Your task to perform on an android device: toggle notifications settings in the gmail app Image 0: 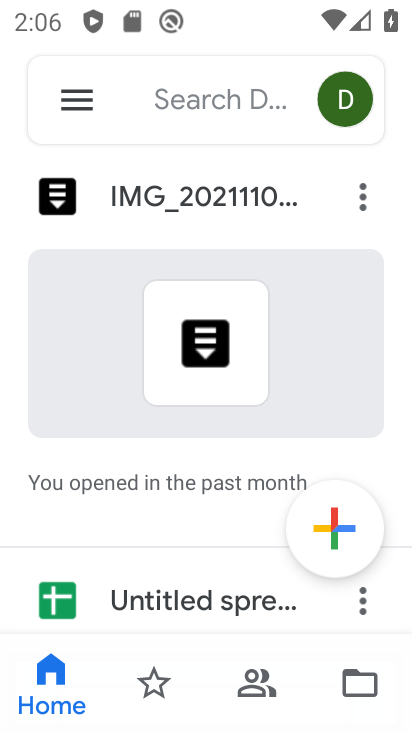
Step 0: press home button
Your task to perform on an android device: toggle notifications settings in the gmail app Image 1: 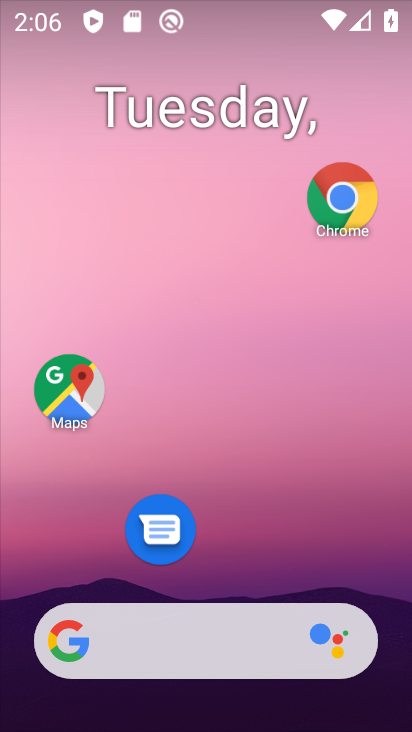
Step 1: drag from (229, 518) to (271, 36)
Your task to perform on an android device: toggle notifications settings in the gmail app Image 2: 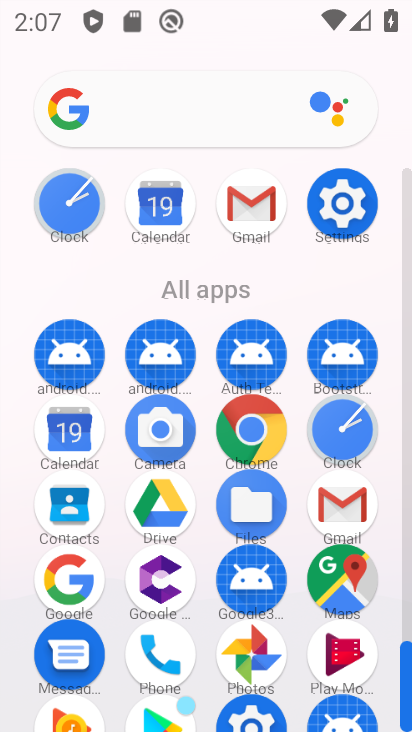
Step 2: click (248, 203)
Your task to perform on an android device: toggle notifications settings in the gmail app Image 3: 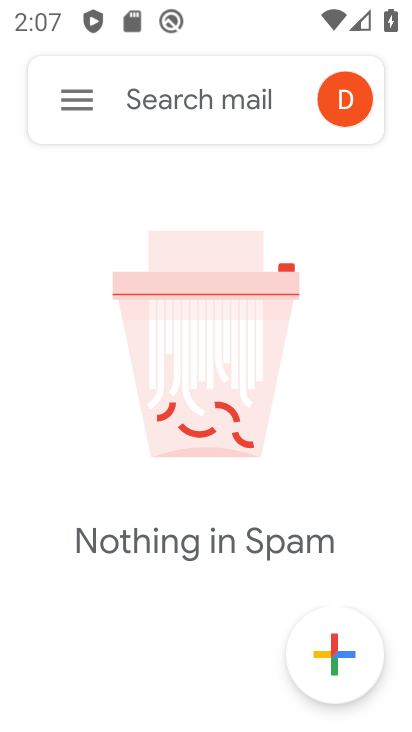
Step 3: click (75, 96)
Your task to perform on an android device: toggle notifications settings in the gmail app Image 4: 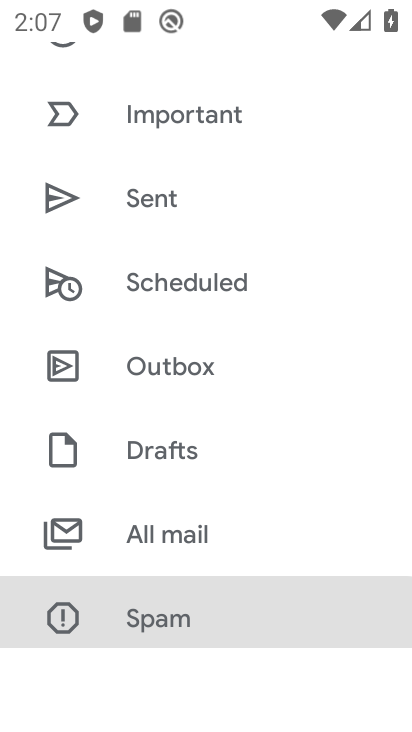
Step 4: drag from (191, 577) to (348, 8)
Your task to perform on an android device: toggle notifications settings in the gmail app Image 5: 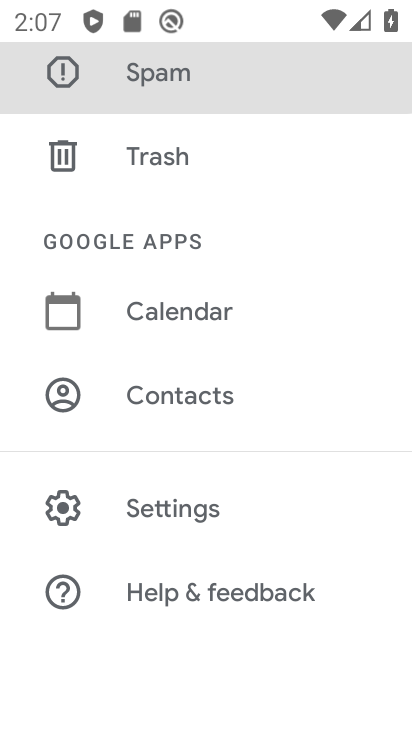
Step 5: click (177, 513)
Your task to perform on an android device: toggle notifications settings in the gmail app Image 6: 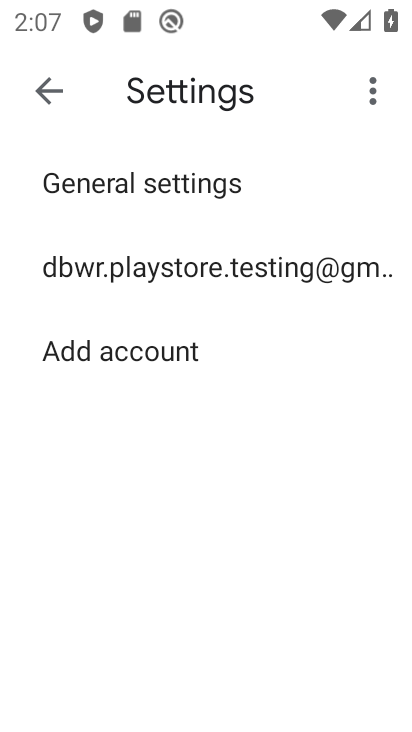
Step 6: click (163, 258)
Your task to perform on an android device: toggle notifications settings in the gmail app Image 7: 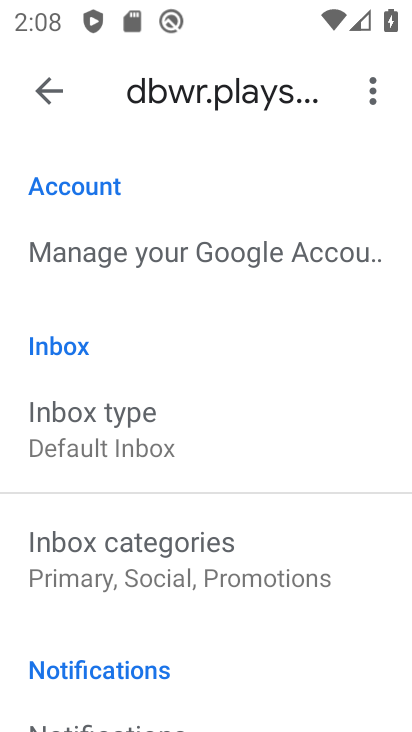
Step 7: drag from (187, 604) to (299, 56)
Your task to perform on an android device: toggle notifications settings in the gmail app Image 8: 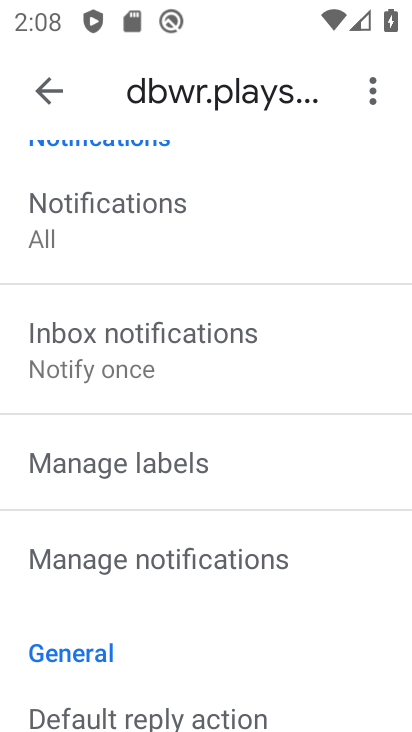
Step 8: click (199, 560)
Your task to perform on an android device: toggle notifications settings in the gmail app Image 9: 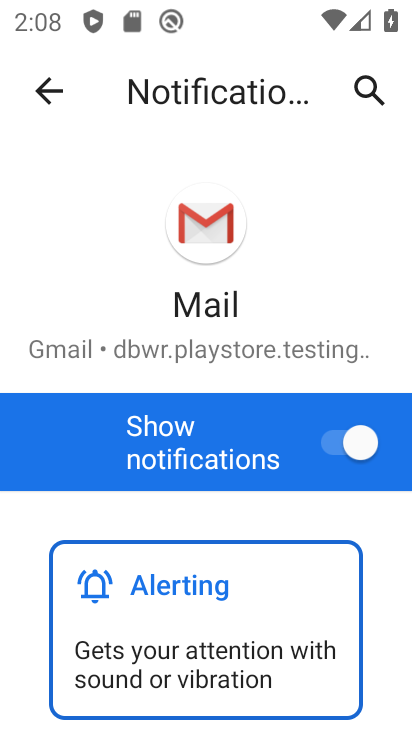
Step 9: click (349, 442)
Your task to perform on an android device: toggle notifications settings in the gmail app Image 10: 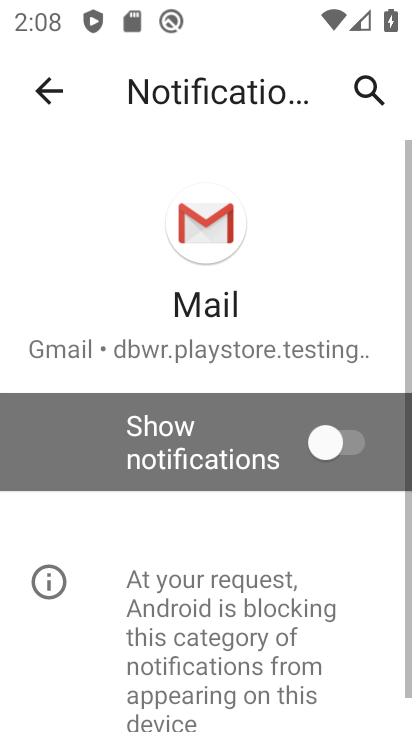
Step 10: task complete